Your task to perform on an android device: toggle improve location accuracy Image 0: 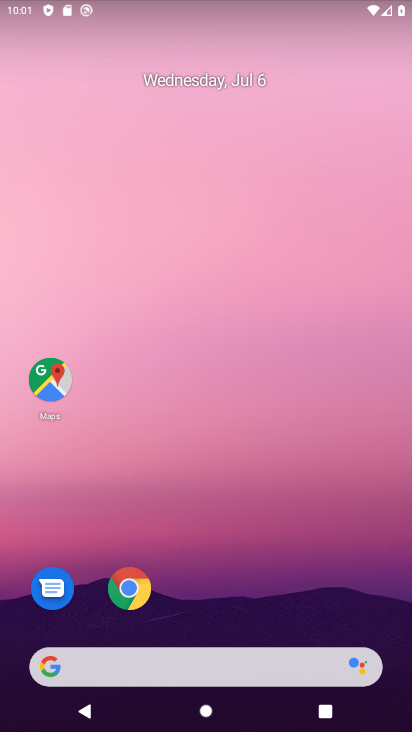
Step 0: click (285, 275)
Your task to perform on an android device: toggle improve location accuracy Image 1: 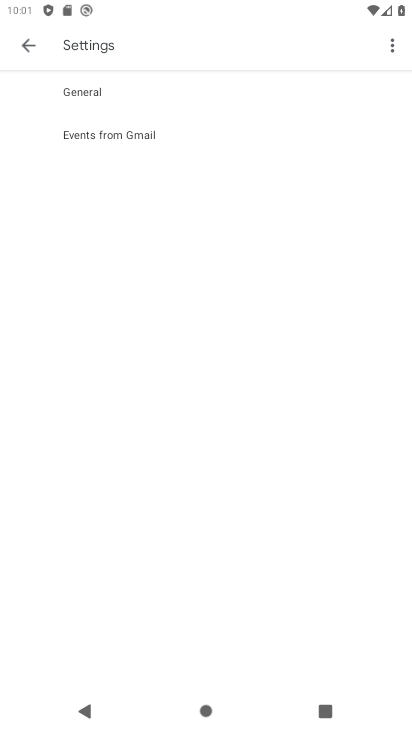
Step 1: press home button
Your task to perform on an android device: toggle improve location accuracy Image 2: 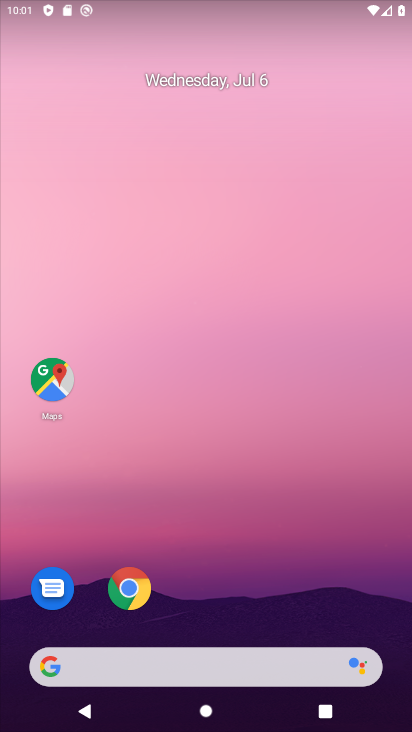
Step 2: drag from (260, 435) to (260, 86)
Your task to perform on an android device: toggle improve location accuracy Image 3: 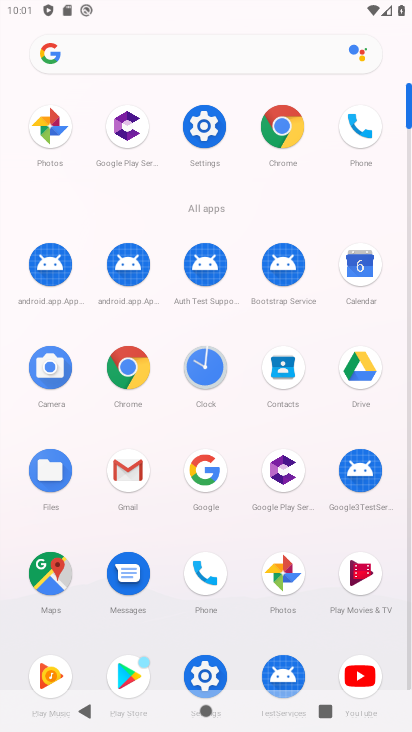
Step 3: click (206, 114)
Your task to perform on an android device: toggle improve location accuracy Image 4: 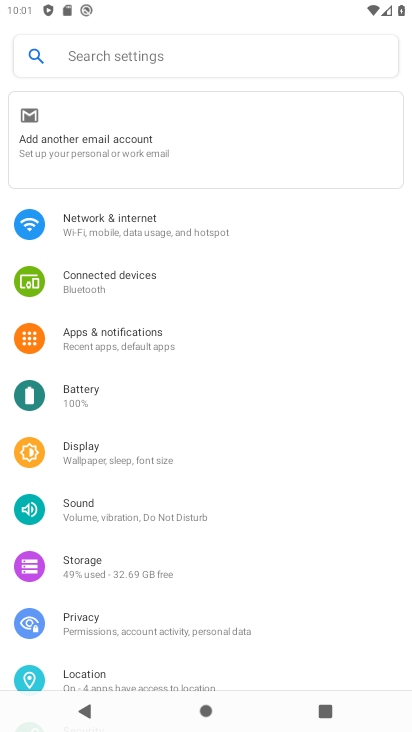
Step 4: drag from (175, 599) to (189, 267)
Your task to perform on an android device: toggle improve location accuracy Image 5: 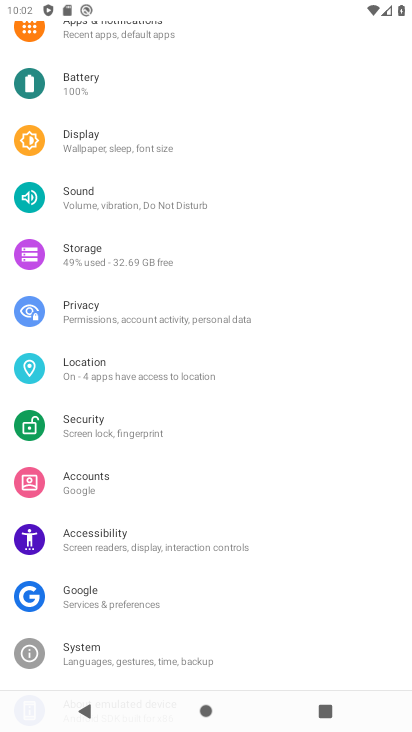
Step 5: click (91, 362)
Your task to perform on an android device: toggle improve location accuracy Image 6: 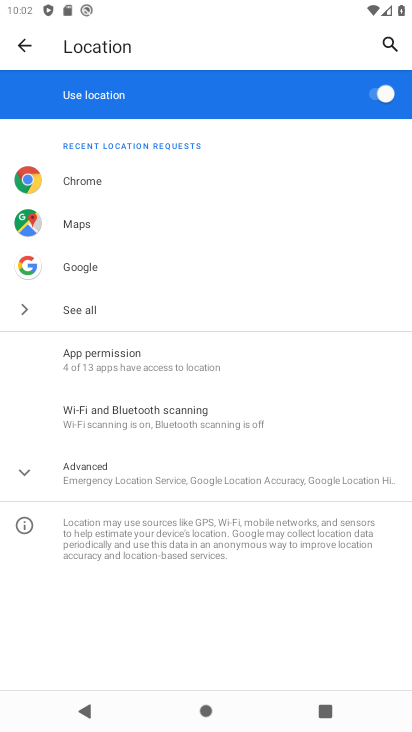
Step 6: click (133, 480)
Your task to perform on an android device: toggle improve location accuracy Image 7: 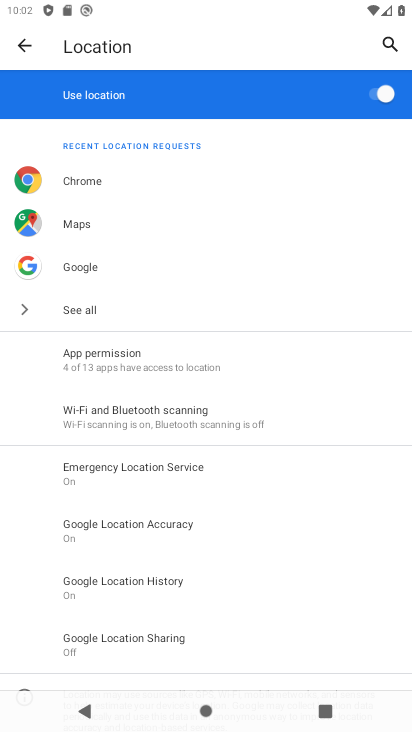
Step 7: click (158, 538)
Your task to perform on an android device: toggle improve location accuracy Image 8: 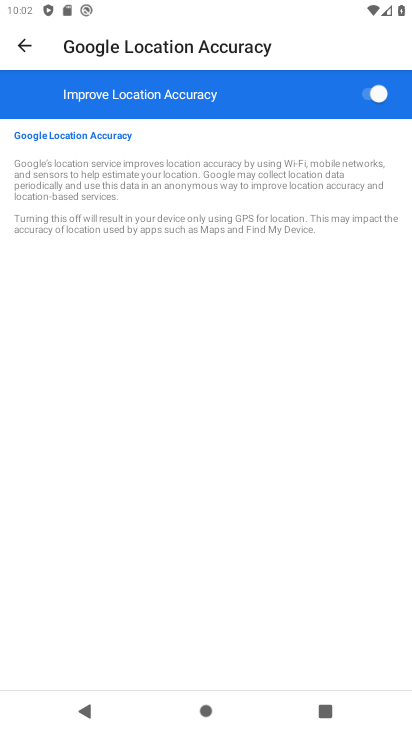
Step 8: click (374, 89)
Your task to perform on an android device: toggle improve location accuracy Image 9: 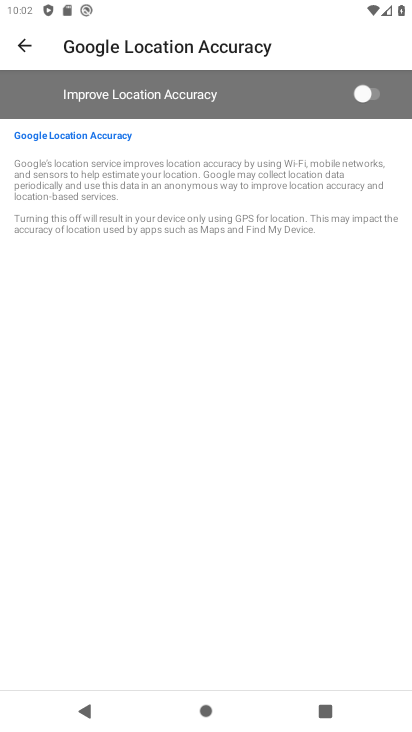
Step 9: task complete